Your task to perform on an android device: Go to sound settings Image 0: 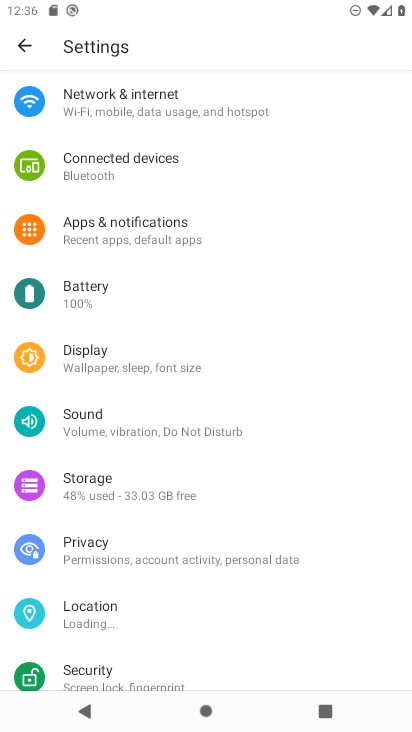
Step 0: press home button
Your task to perform on an android device: Go to sound settings Image 1: 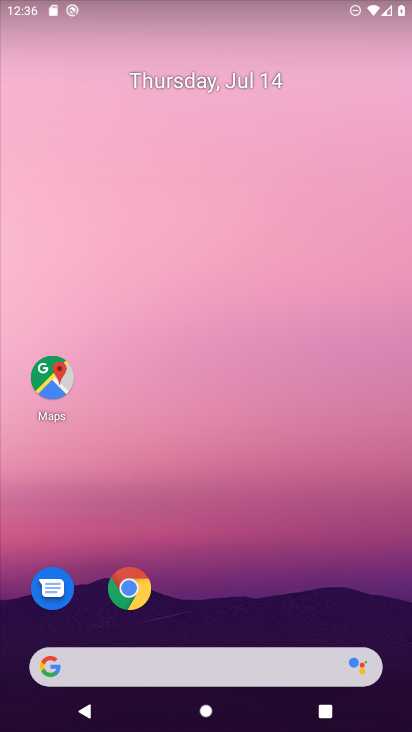
Step 1: drag from (146, 650) to (244, 39)
Your task to perform on an android device: Go to sound settings Image 2: 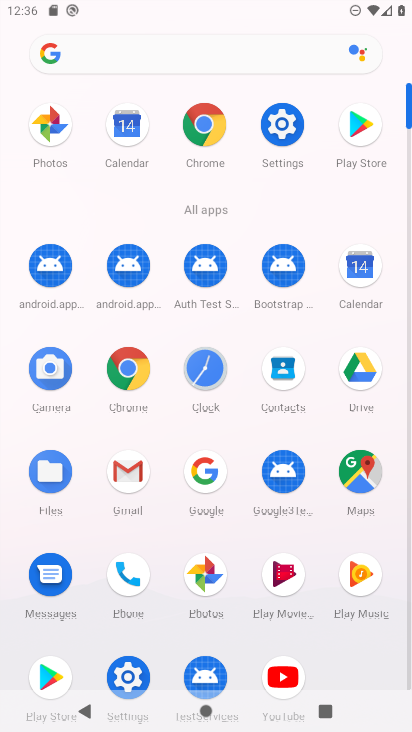
Step 2: click (289, 126)
Your task to perform on an android device: Go to sound settings Image 3: 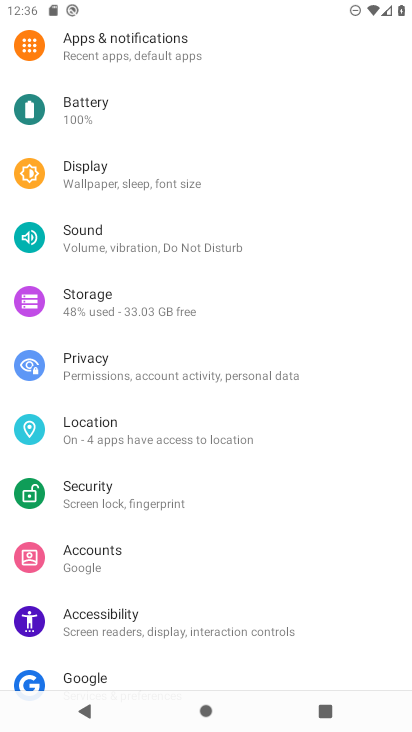
Step 3: click (130, 237)
Your task to perform on an android device: Go to sound settings Image 4: 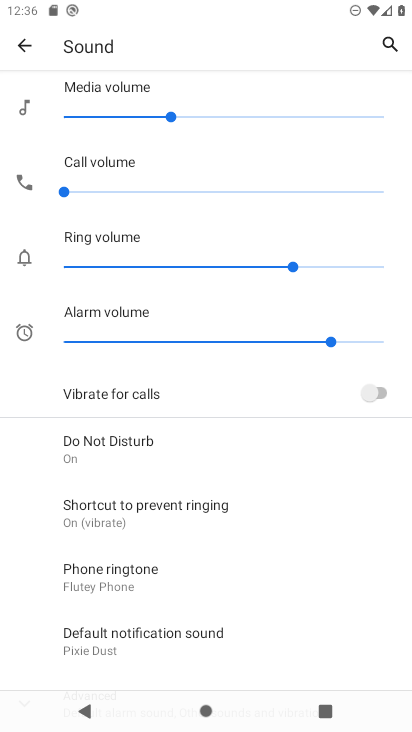
Step 4: task complete